Your task to perform on an android device: See recent photos Image 0: 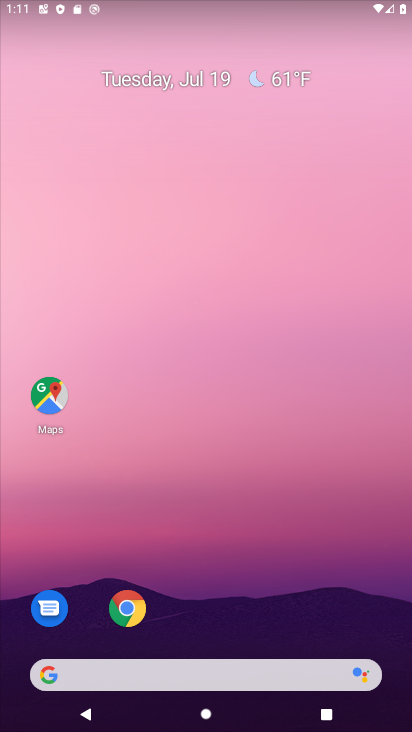
Step 0: drag from (179, 618) to (161, 108)
Your task to perform on an android device: See recent photos Image 1: 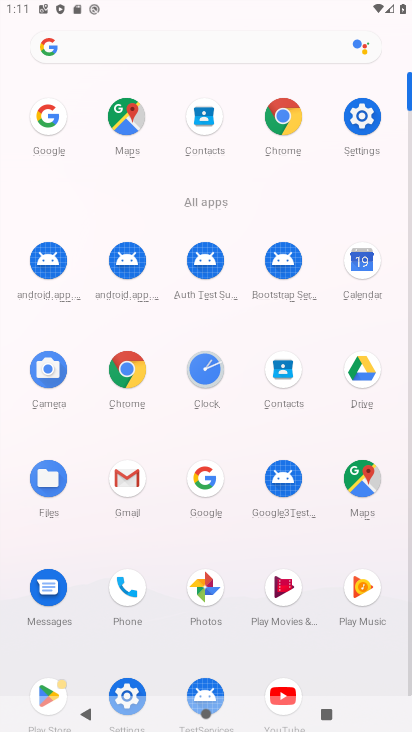
Step 1: click (207, 591)
Your task to perform on an android device: See recent photos Image 2: 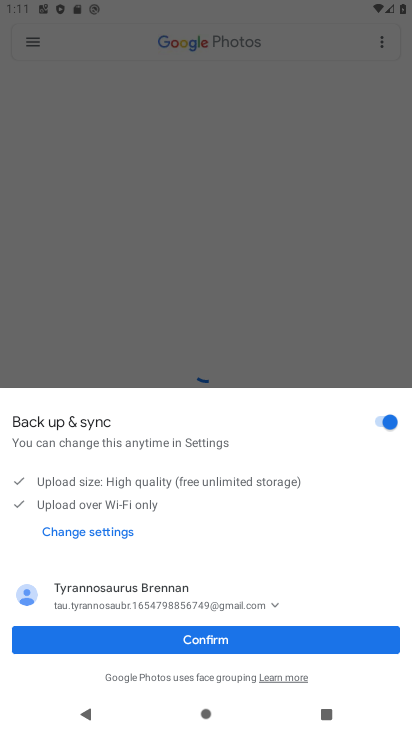
Step 2: click (203, 640)
Your task to perform on an android device: See recent photos Image 3: 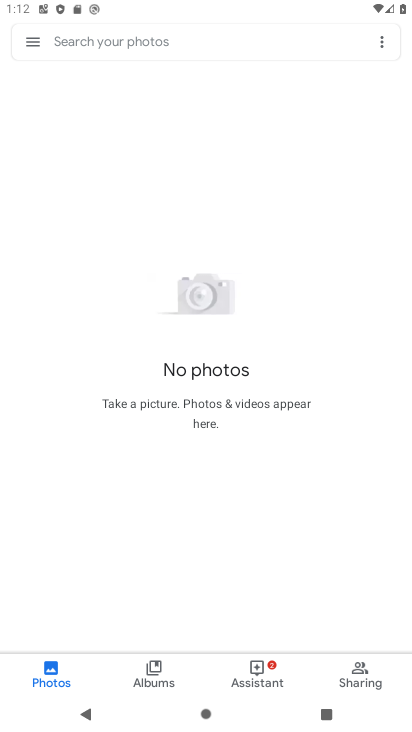
Step 3: task complete